Your task to perform on an android device: stop showing notifications on the lock screen Image 0: 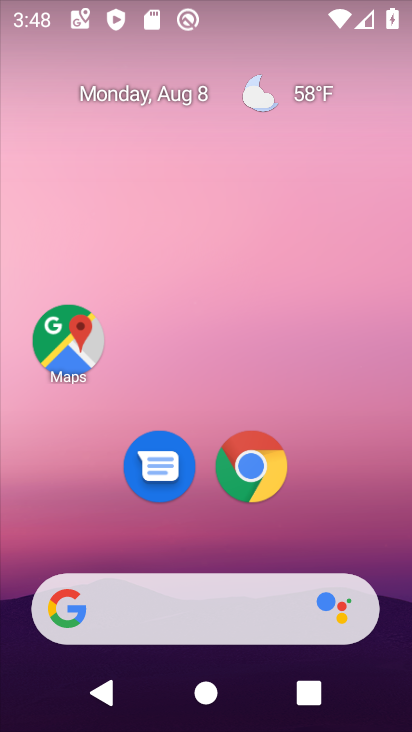
Step 0: drag from (209, 590) to (261, 178)
Your task to perform on an android device: stop showing notifications on the lock screen Image 1: 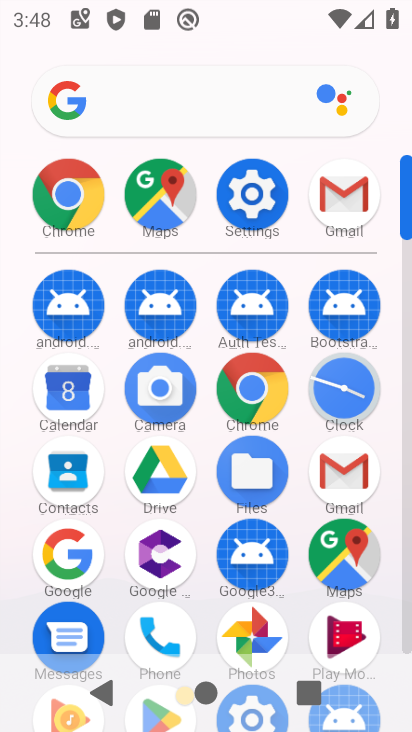
Step 1: click (261, 199)
Your task to perform on an android device: stop showing notifications on the lock screen Image 2: 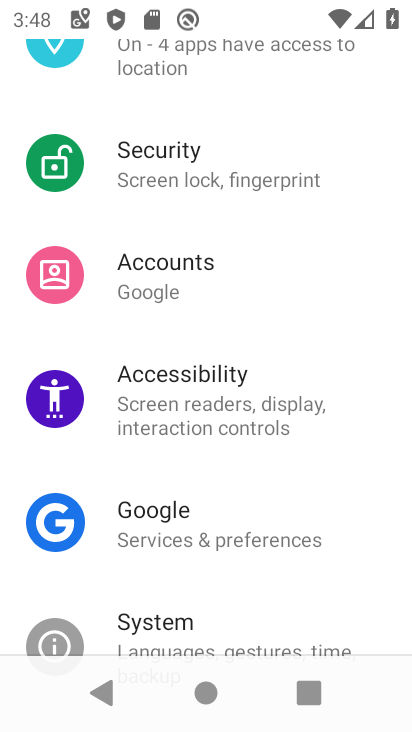
Step 2: drag from (167, 146) to (158, 587)
Your task to perform on an android device: stop showing notifications on the lock screen Image 3: 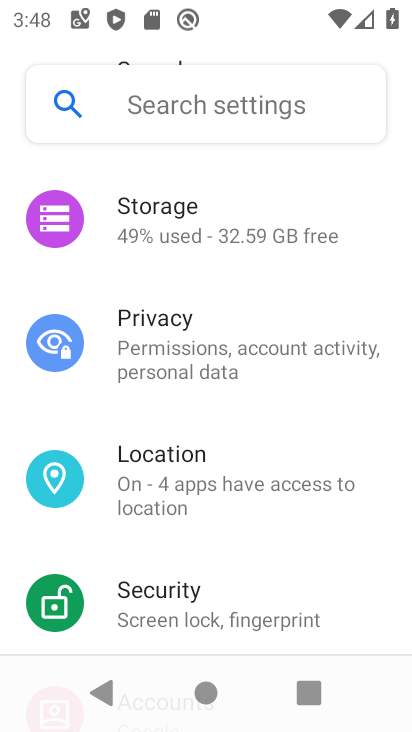
Step 3: drag from (192, 210) to (197, 591)
Your task to perform on an android device: stop showing notifications on the lock screen Image 4: 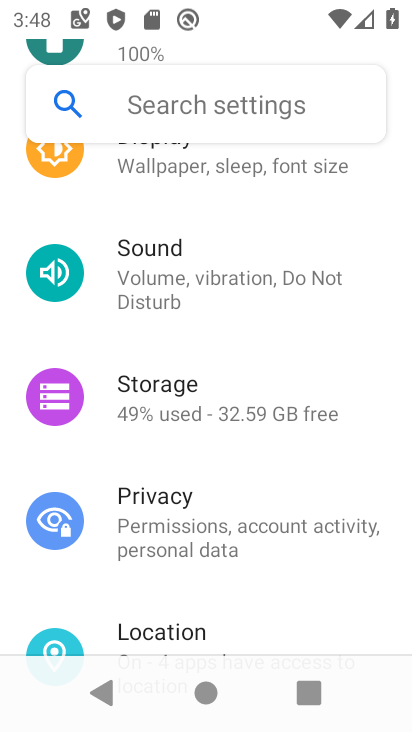
Step 4: drag from (195, 424) to (191, 598)
Your task to perform on an android device: stop showing notifications on the lock screen Image 5: 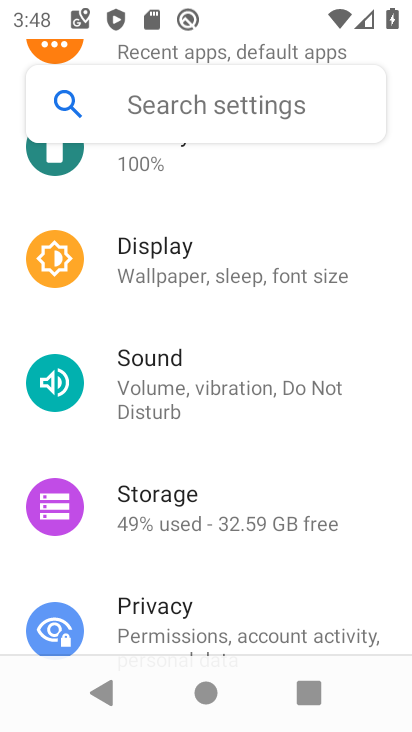
Step 5: drag from (193, 349) to (187, 593)
Your task to perform on an android device: stop showing notifications on the lock screen Image 6: 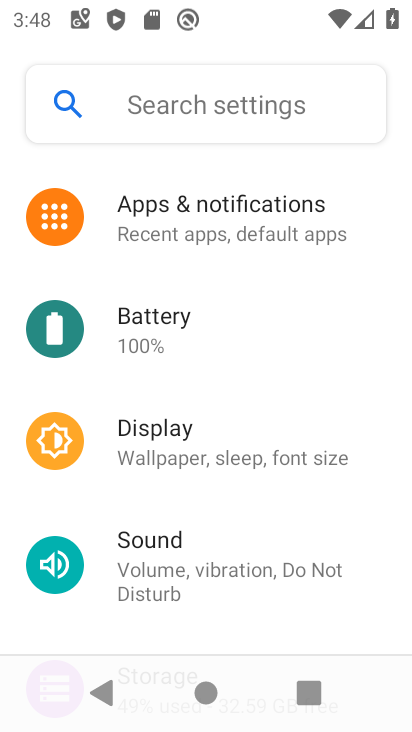
Step 6: click (224, 215)
Your task to perform on an android device: stop showing notifications on the lock screen Image 7: 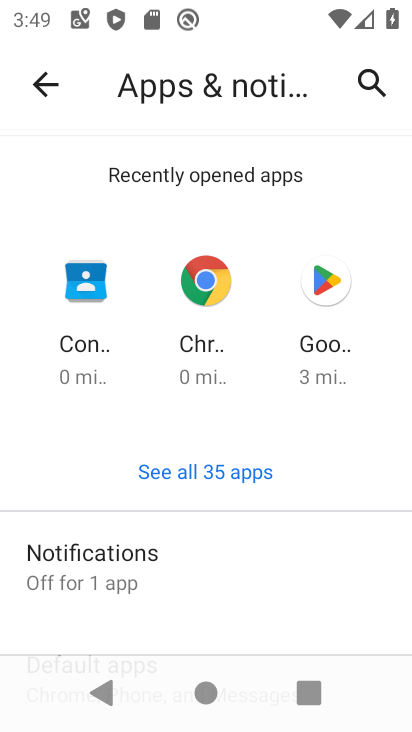
Step 7: drag from (153, 573) to (183, 161)
Your task to perform on an android device: stop showing notifications on the lock screen Image 8: 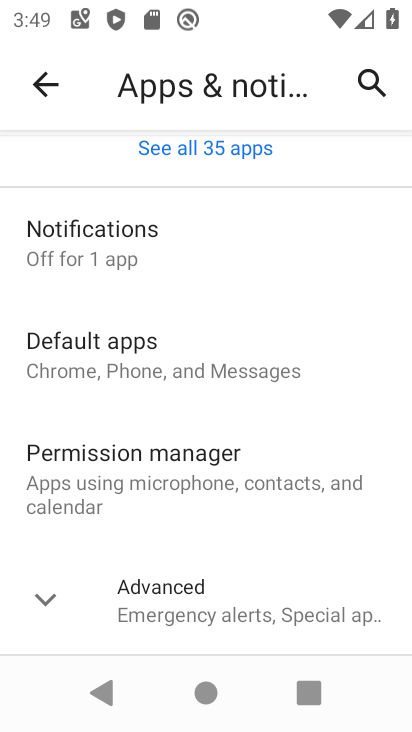
Step 8: drag from (167, 574) to (261, 246)
Your task to perform on an android device: stop showing notifications on the lock screen Image 9: 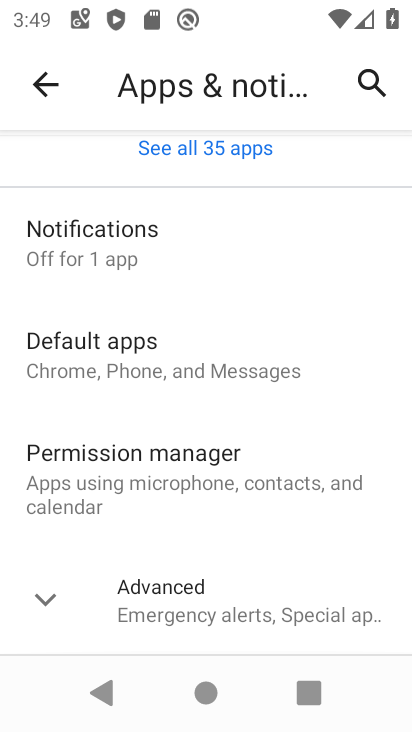
Step 9: click (126, 239)
Your task to perform on an android device: stop showing notifications on the lock screen Image 10: 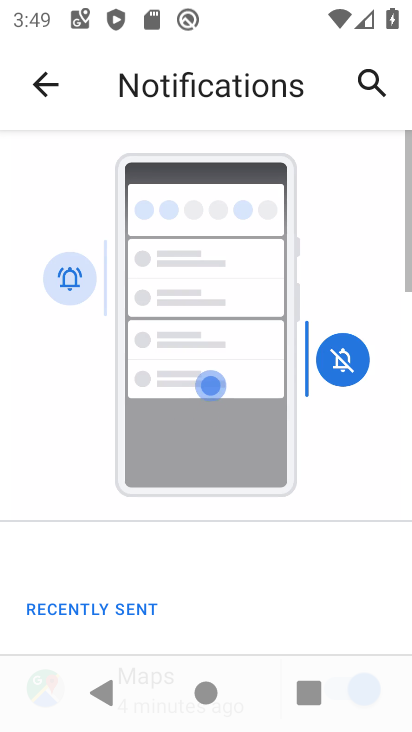
Step 10: drag from (126, 562) to (274, 91)
Your task to perform on an android device: stop showing notifications on the lock screen Image 11: 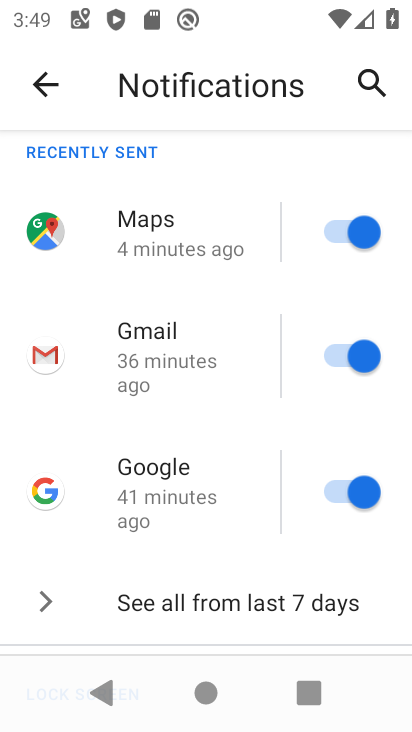
Step 11: drag from (182, 589) to (262, 119)
Your task to perform on an android device: stop showing notifications on the lock screen Image 12: 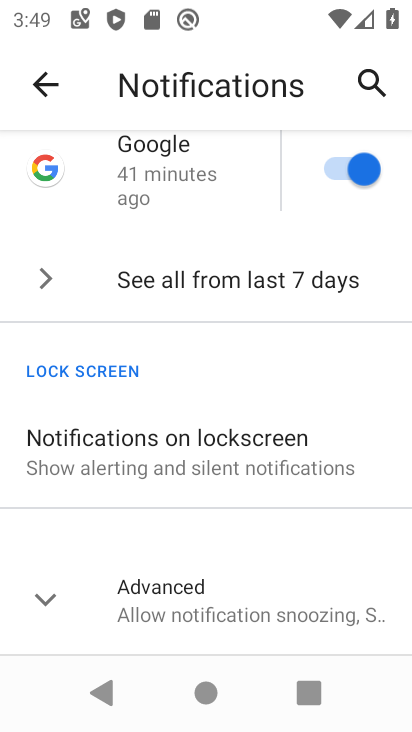
Step 12: click (173, 458)
Your task to perform on an android device: stop showing notifications on the lock screen Image 13: 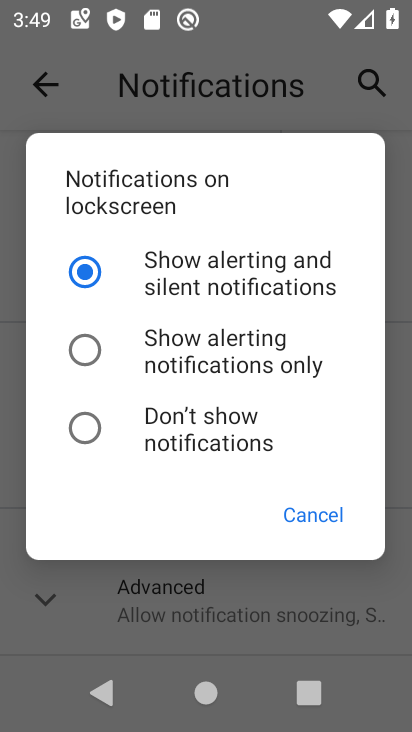
Step 13: click (147, 419)
Your task to perform on an android device: stop showing notifications on the lock screen Image 14: 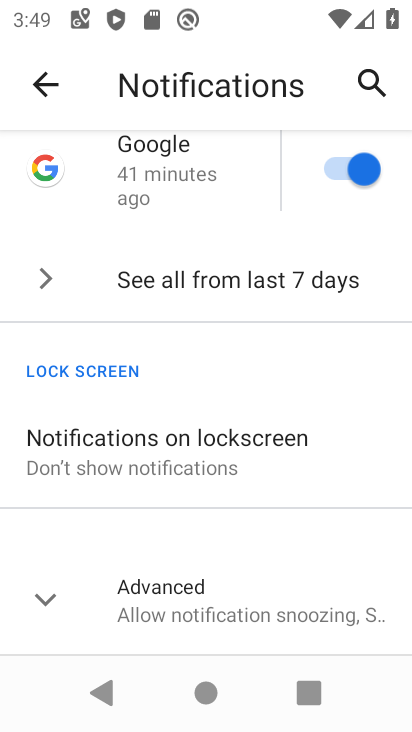
Step 14: task complete